Your task to perform on an android device: check android version Image 0: 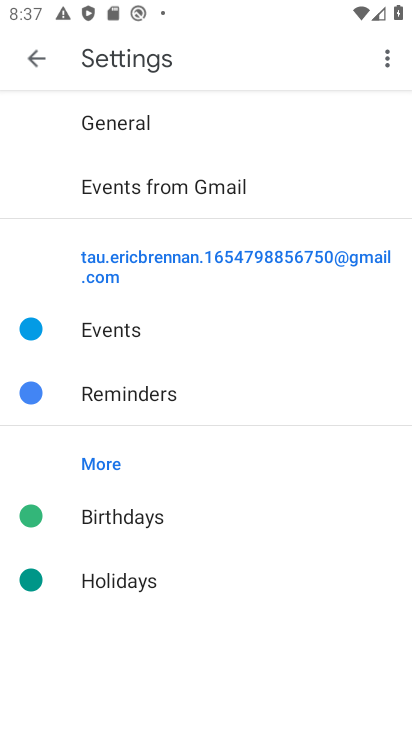
Step 0: press home button
Your task to perform on an android device: check android version Image 1: 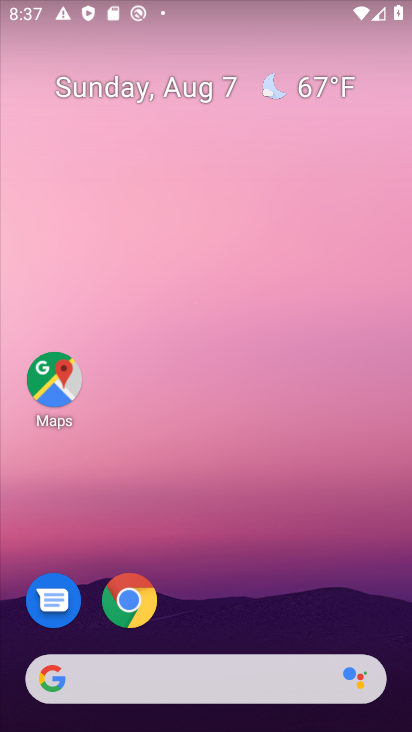
Step 1: click (213, 189)
Your task to perform on an android device: check android version Image 2: 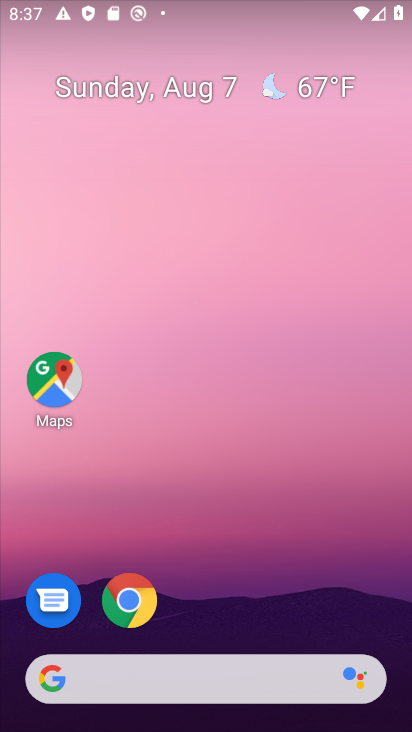
Step 2: drag from (206, 144) to (211, 32)
Your task to perform on an android device: check android version Image 3: 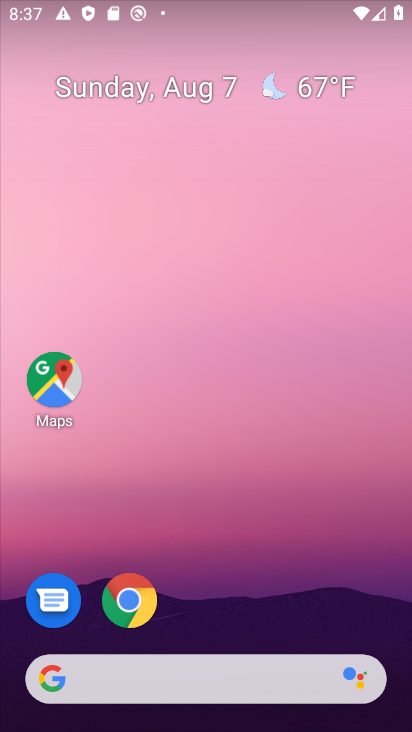
Step 3: drag from (190, 598) to (254, 20)
Your task to perform on an android device: check android version Image 4: 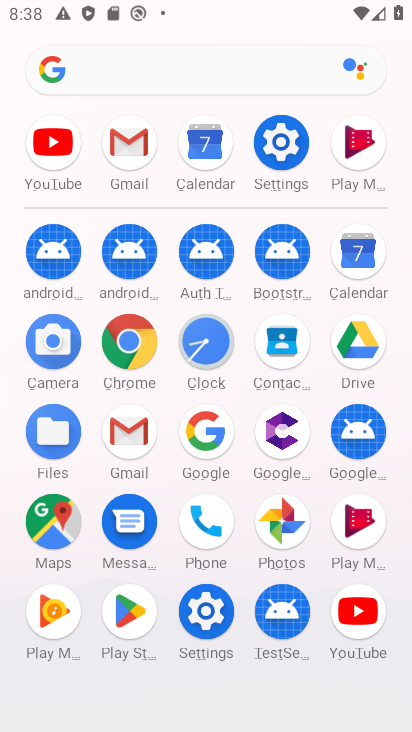
Step 4: click (279, 144)
Your task to perform on an android device: check android version Image 5: 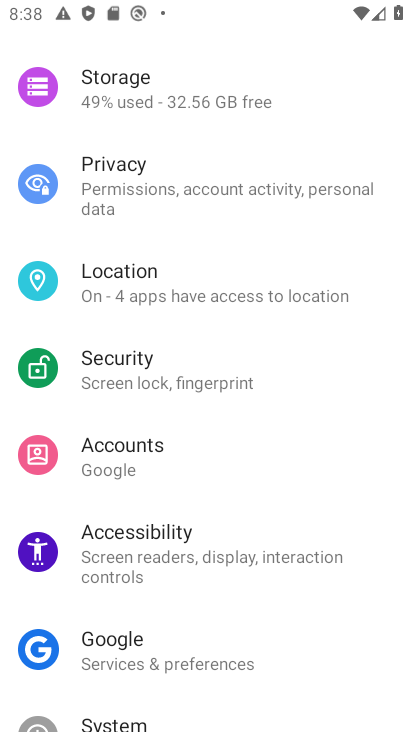
Step 5: drag from (214, 587) to (219, 174)
Your task to perform on an android device: check android version Image 6: 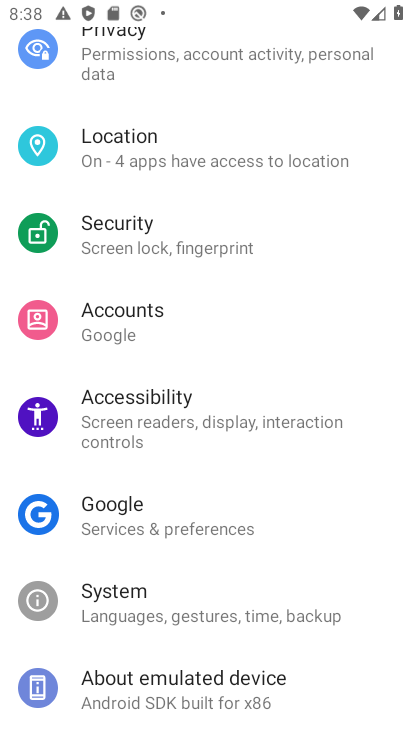
Step 6: click (142, 681)
Your task to perform on an android device: check android version Image 7: 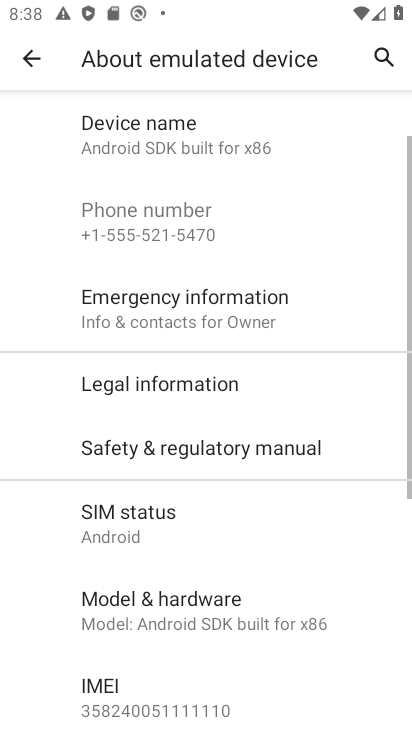
Step 7: task complete